Your task to perform on an android device: change the clock display to digital Image 0: 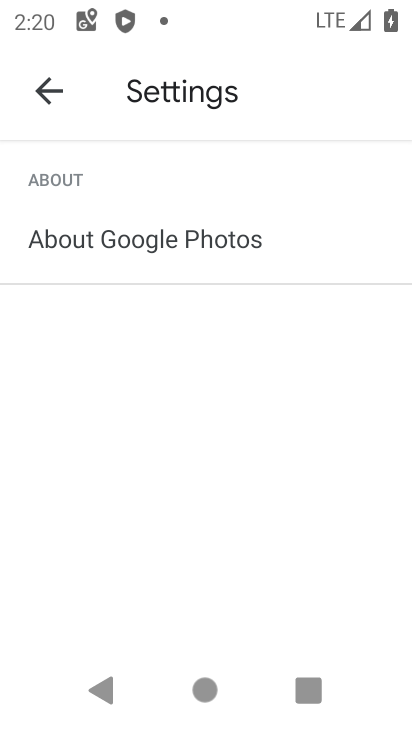
Step 0: press back button
Your task to perform on an android device: change the clock display to digital Image 1: 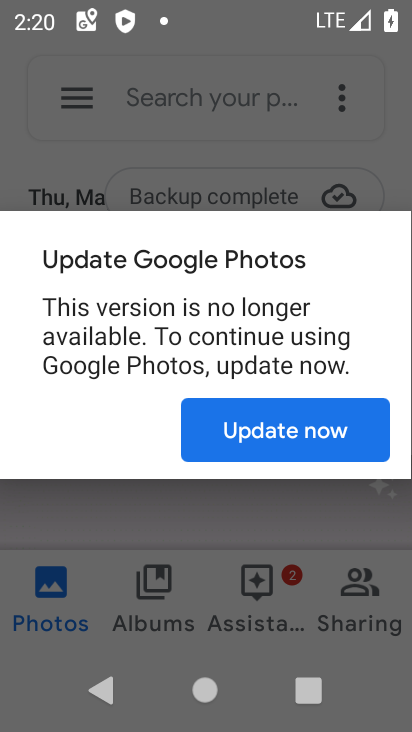
Step 1: press home button
Your task to perform on an android device: change the clock display to digital Image 2: 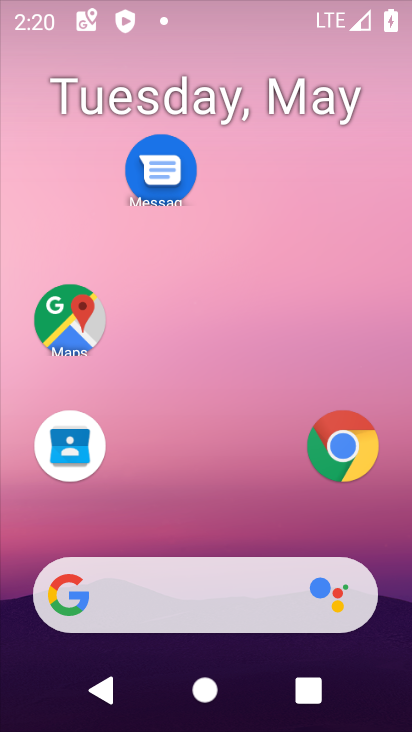
Step 2: drag from (225, 525) to (362, 41)
Your task to perform on an android device: change the clock display to digital Image 3: 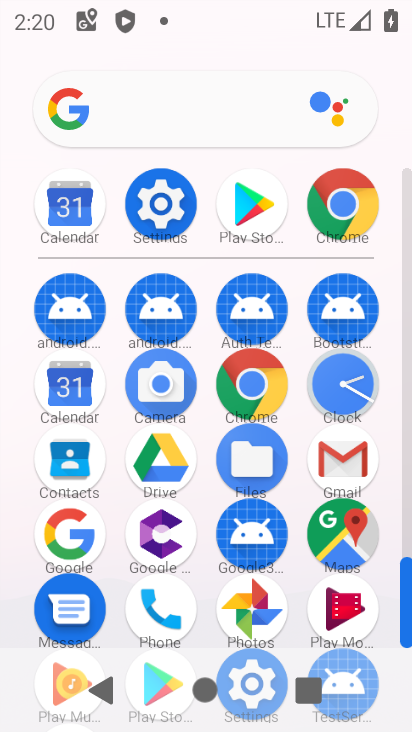
Step 3: click (335, 388)
Your task to perform on an android device: change the clock display to digital Image 4: 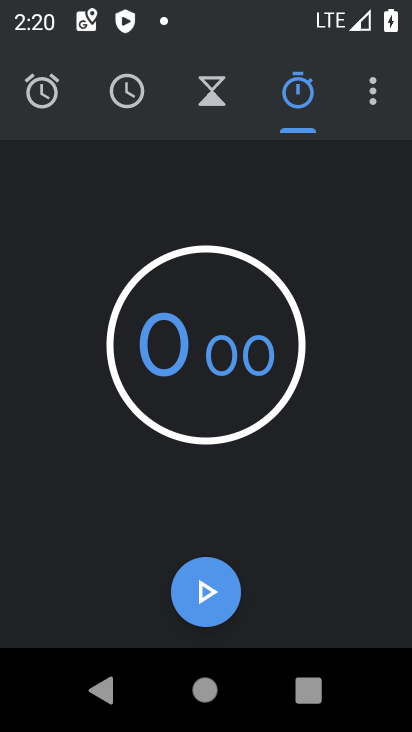
Step 4: click (386, 83)
Your task to perform on an android device: change the clock display to digital Image 5: 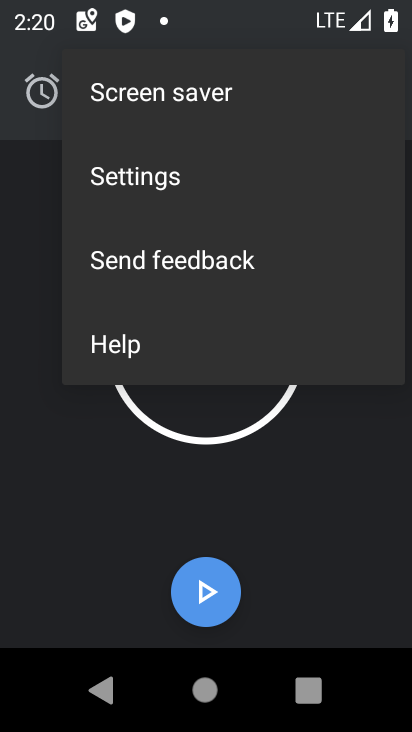
Step 5: click (184, 182)
Your task to perform on an android device: change the clock display to digital Image 6: 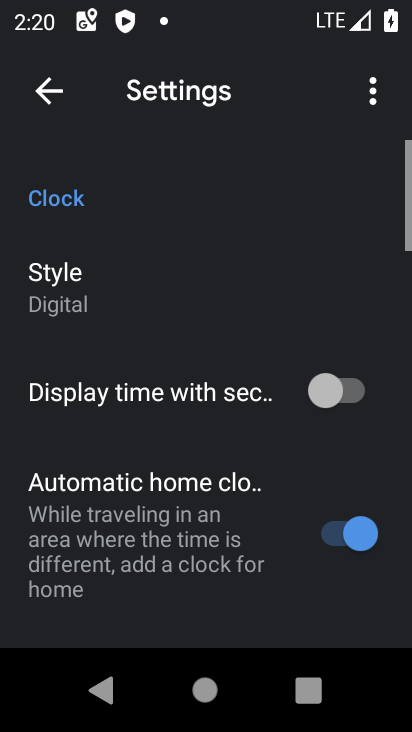
Step 6: click (87, 317)
Your task to perform on an android device: change the clock display to digital Image 7: 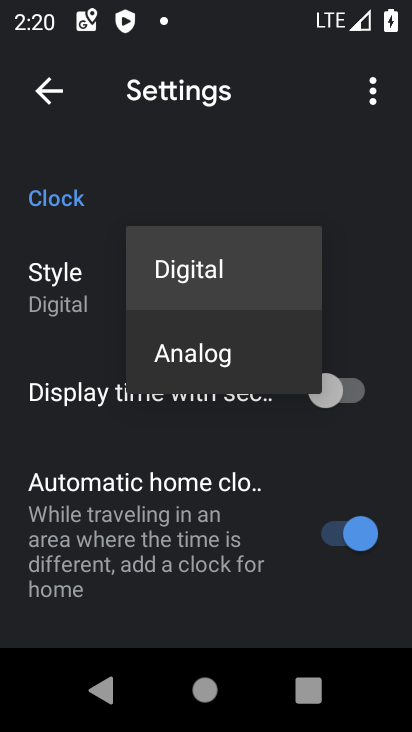
Step 7: task complete